Your task to perform on an android device: Check the weather Image 0: 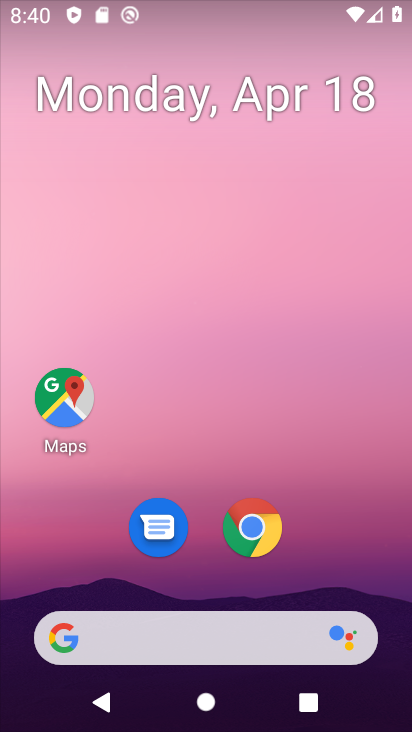
Step 0: drag from (354, 525) to (394, 89)
Your task to perform on an android device: Check the weather Image 1: 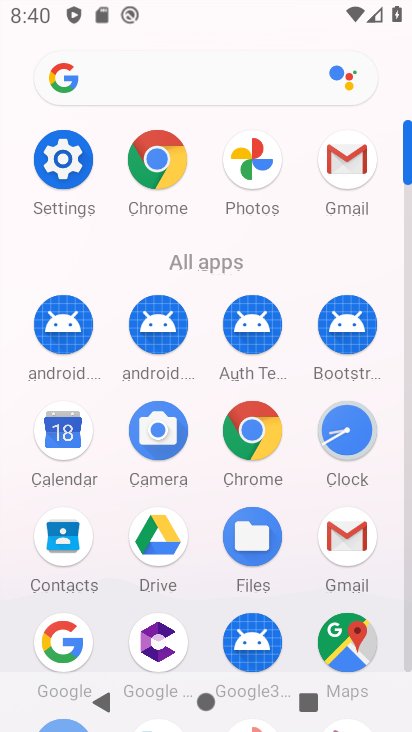
Step 1: click (248, 432)
Your task to perform on an android device: Check the weather Image 2: 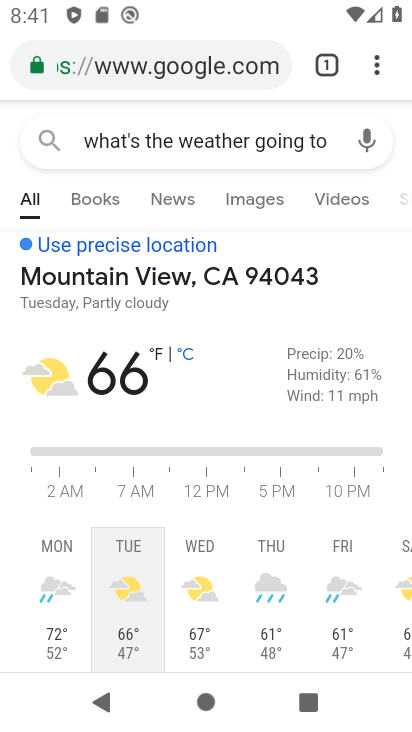
Step 2: click (324, 141)
Your task to perform on an android device: Check the weather Image 3: 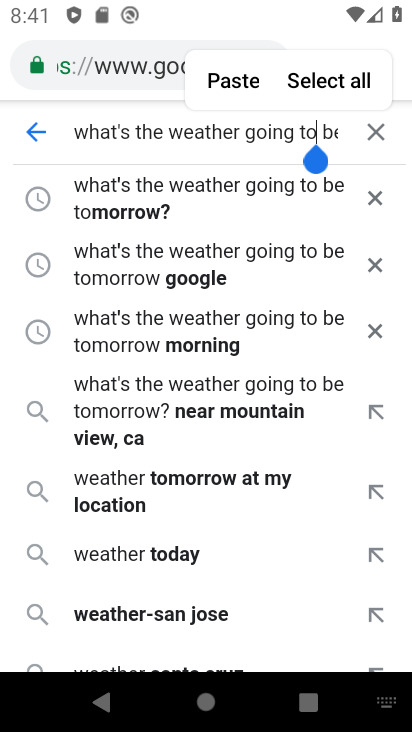
Step 3: click (375, 134)
Your task to perform on an android device: Check the weather Image 4: 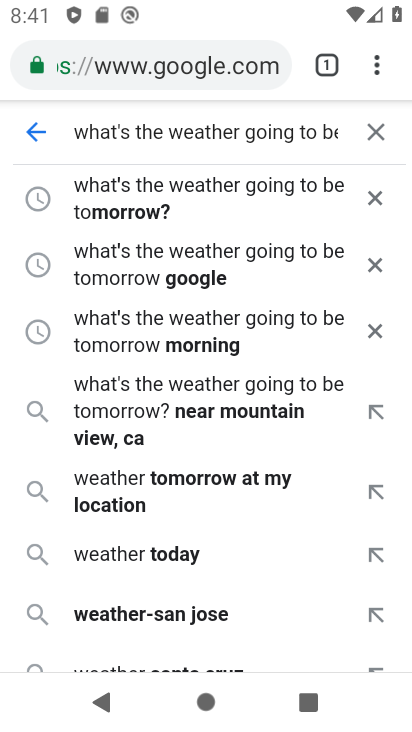
Step 4: click (374, 130)
Your task to perform on an android device: Check the weather Image 5: 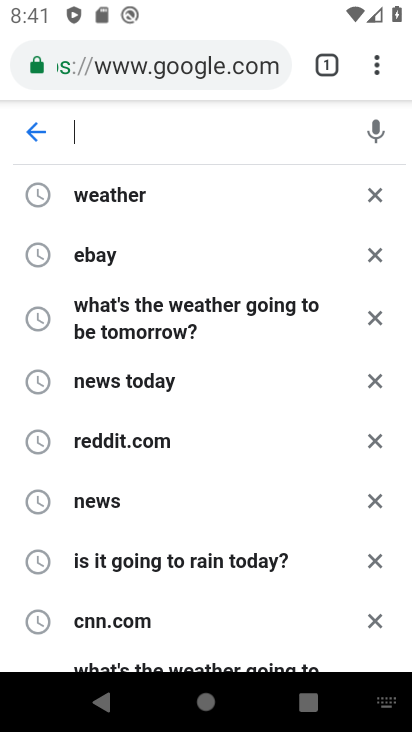
Step 5: type "Check the weather"
Your task to perform on an android device: Check the weather Image 6: 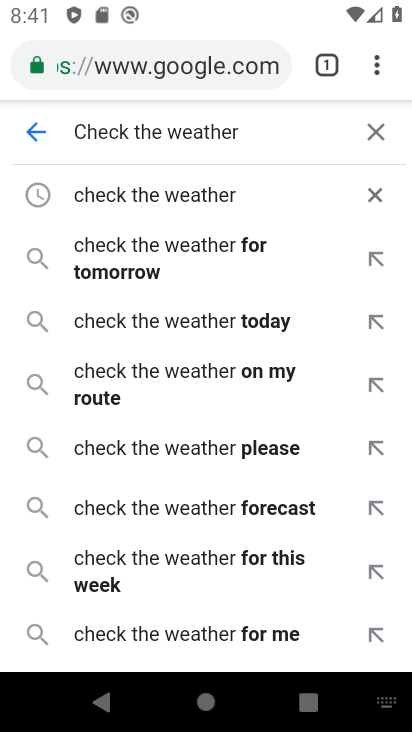
Step 6: click (195, 191)
Your task to perform on an android device: Check the weather Image 7: 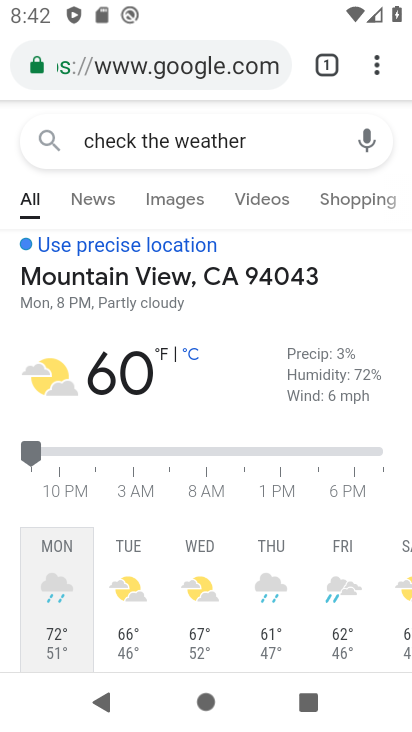
Step 7: task complete